Your task to perform on an android device: check google app version Image 0: 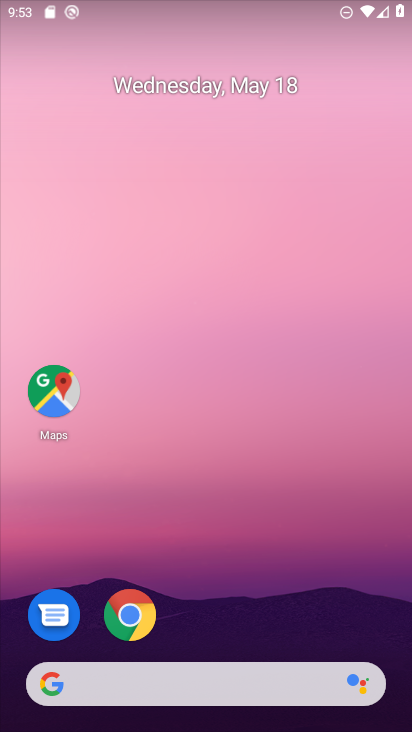
Step 0: drag from (205, 610) to (175, 62)
Your task to perform on an android device: check google app version Image 1: 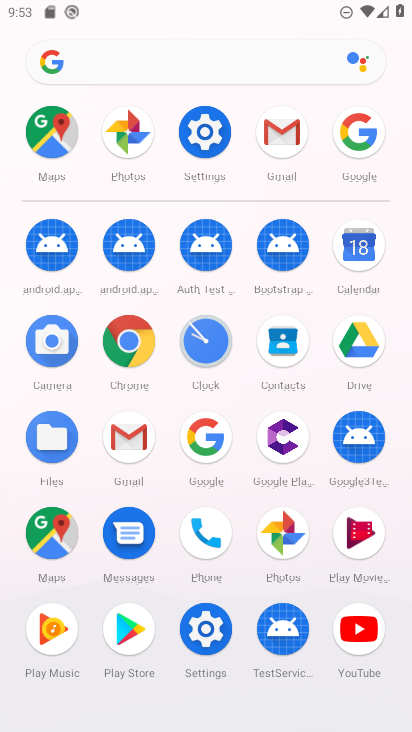
Step 1: click (357, 132)
Your task to perform on an android device: check google app version Image 2: 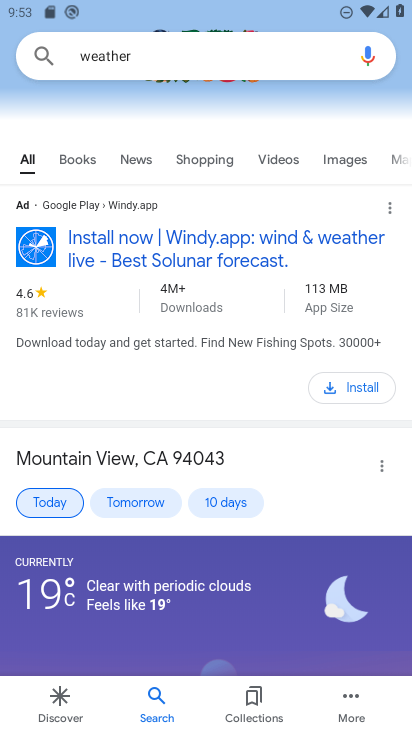
Step 2: press back button
Your task to perform on an android device: check google app version Image 3: 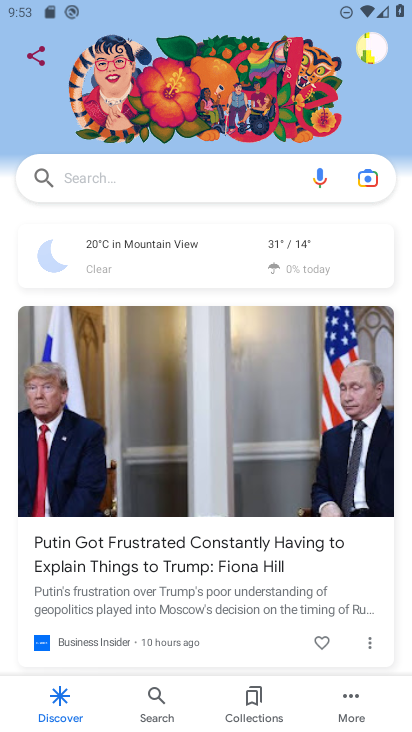
Step 3: click (346, 703)
Your task to perform on an android device: check google app version Image 4: 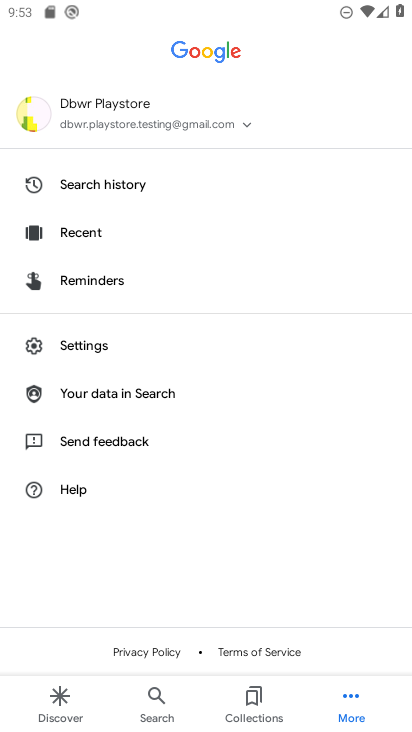
Step 4: click (97, 345)
Your task to perform on an android device: check google app version Image 5: 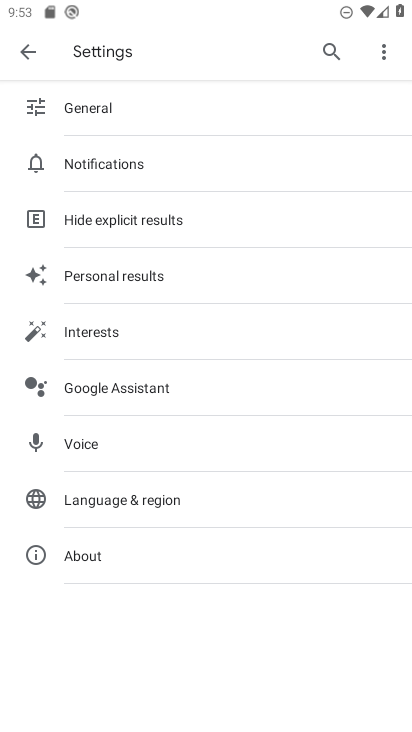
Step 5: click (102, 556)
Your task to perform on an android device: check google app version Image 6: 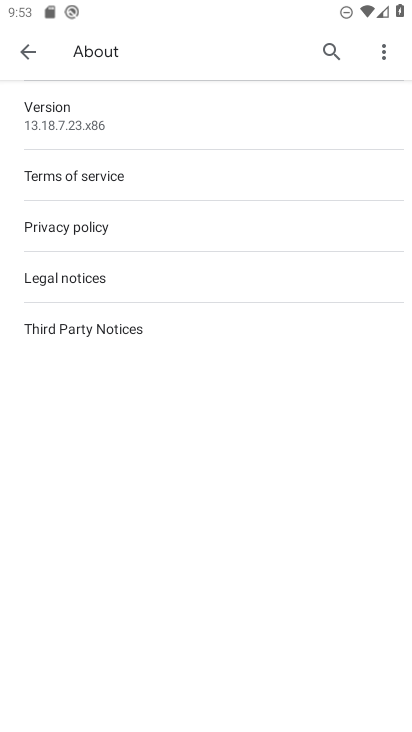
Step 6: task complete